Your task to perform on an android device: Do I have any events this weekend? Image 0: 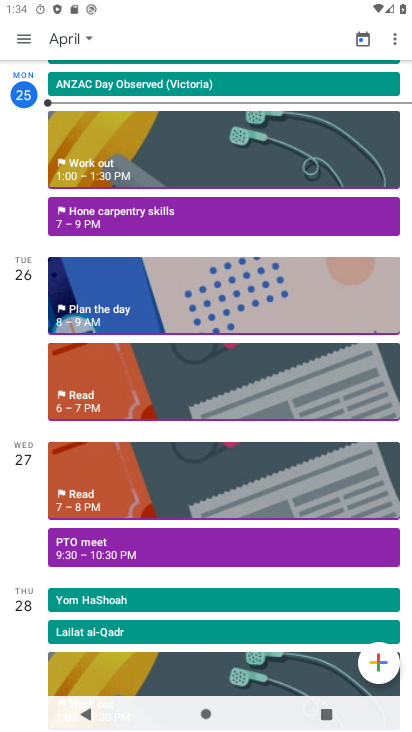
Step 0: click (13, 35)
Your task to perform on an android device: Do I have any events this weekend? Image 1: 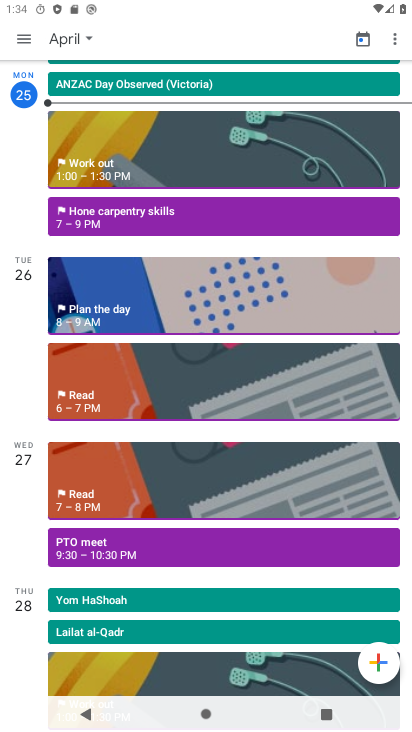
Step 1: click (26, 36)
Your task to perform on an android device: Do I have any events this weekend? Image 2: 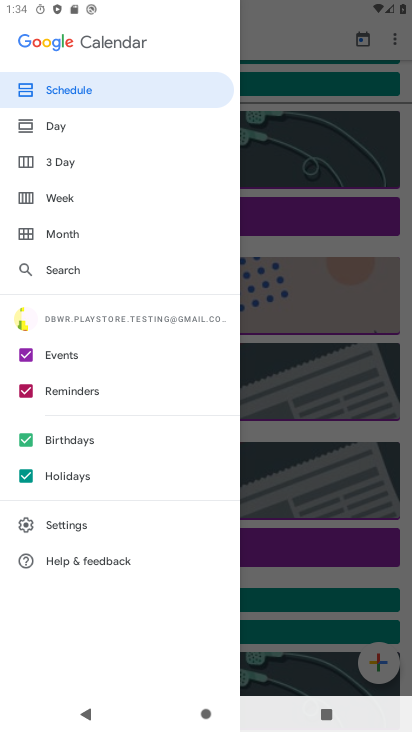
Step 2: click (96, 195)
Your task to perform on an android device: Do I have any events this weekend? Image 3: 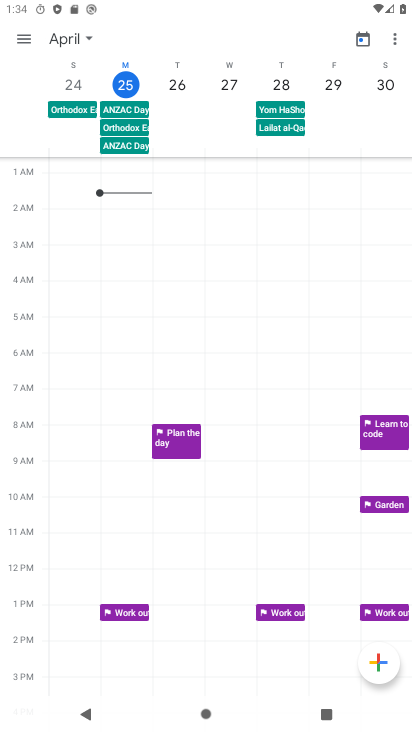
Step 3: click (385, 85)
Your task to perform on an android device: Do I have any events this weekend? Image 4: 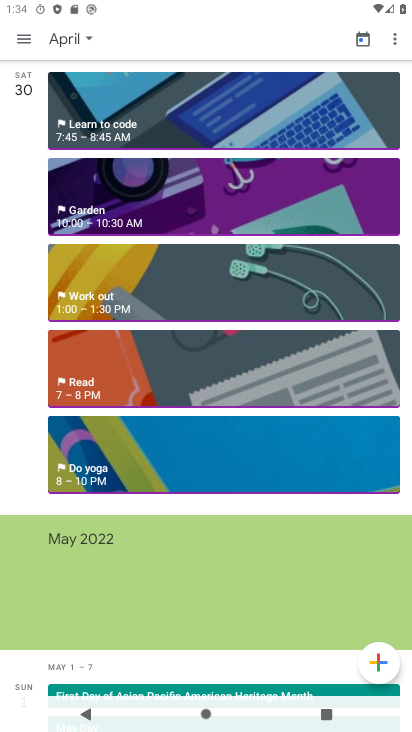
Step 4: task complete